Your task to perform on an android device: Search for Italian restaurants on Maps Image 0: 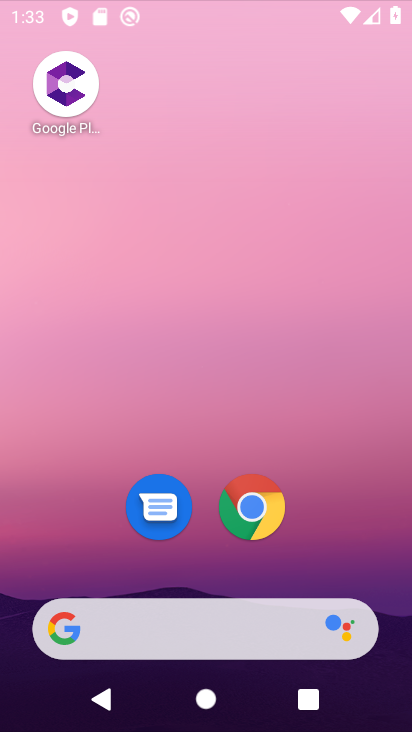
Step 0: drag from (209, 537) to (133, 24)
Your task to perform on an android device: Search for Italian restaurants on Maps Image 1: 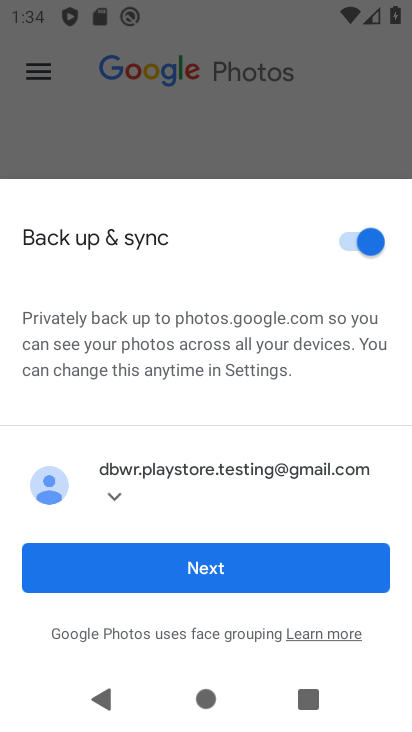
Step 1: press home button
Your task to perform on an android device: Search for Italian restaurants on Maps Image 2: 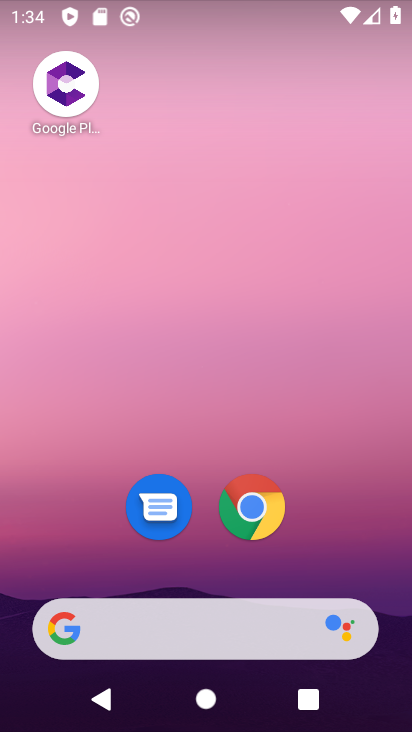
Step 2: drag from (241, 551) to (183, 20)
Your task to perform on an android device: Search for Italian restaurants on Maps Image 3: 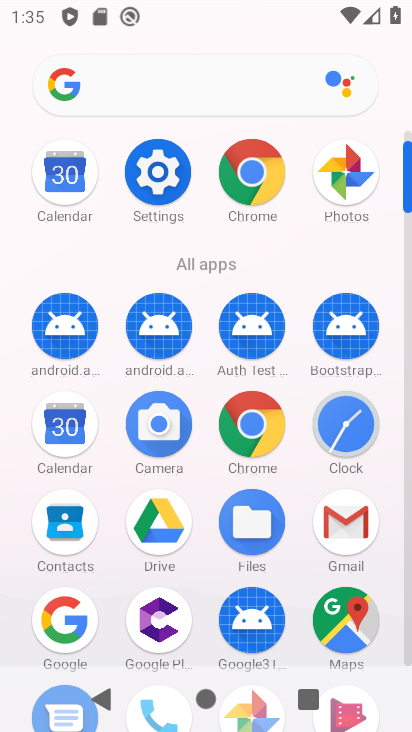
Step 3: drag from (230, 627) to (204, 266)
Your task to perform on an android device: Search for Italian restaurants on Maps Image 4: 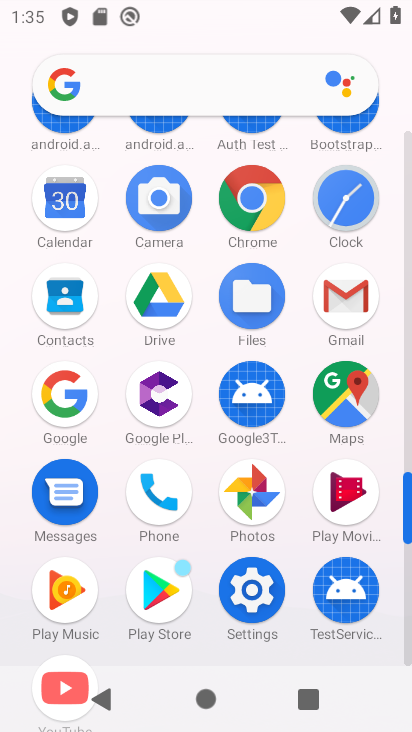
Step 4: click (355, 395)
Your task to perform on an android device: Search for Italian restaurants on Maps Image 5: 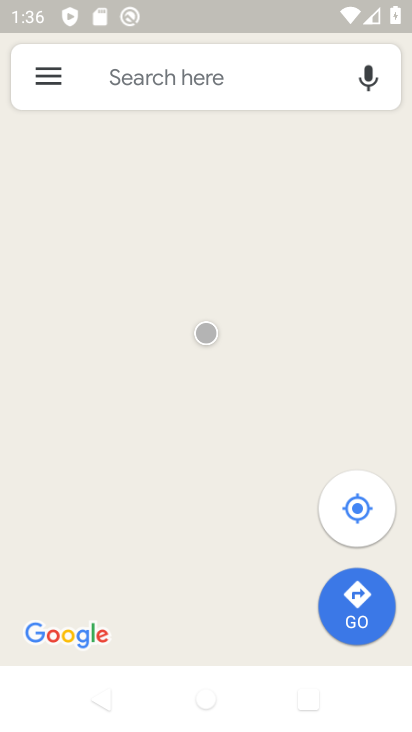
Step 5: click (221, 78)
Your task to perform on an android device: Search for Italian restaurants on Maps Image 6: 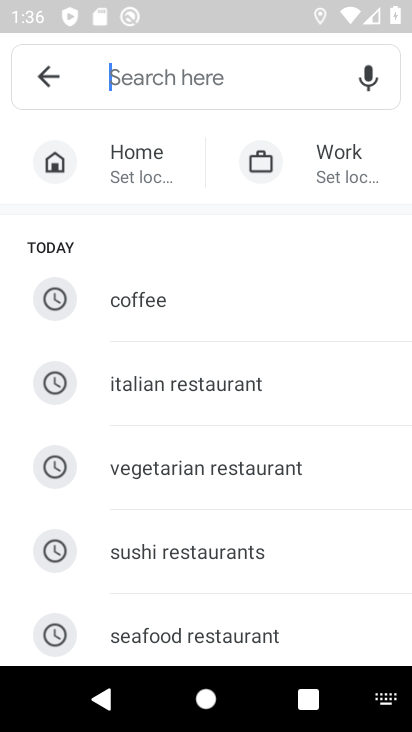
Step 6: click (189, 398)
Your task to perform on an android device: Search for Italian restaurants on Maps Image 7: 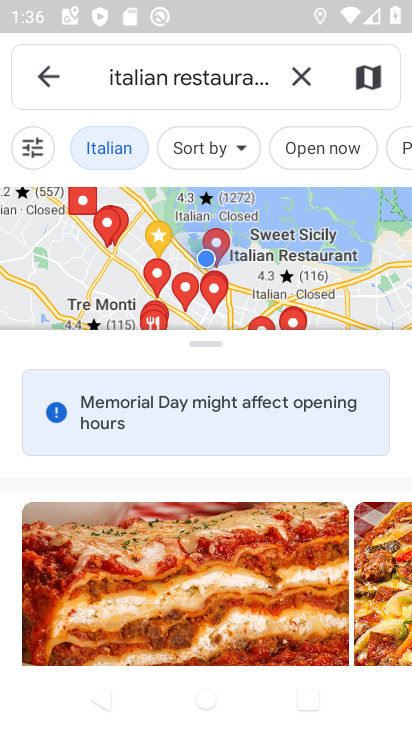
Step 7: task complete